Your task to perform on an android device: Search for vegetarian restaurants on Maps Image 0: 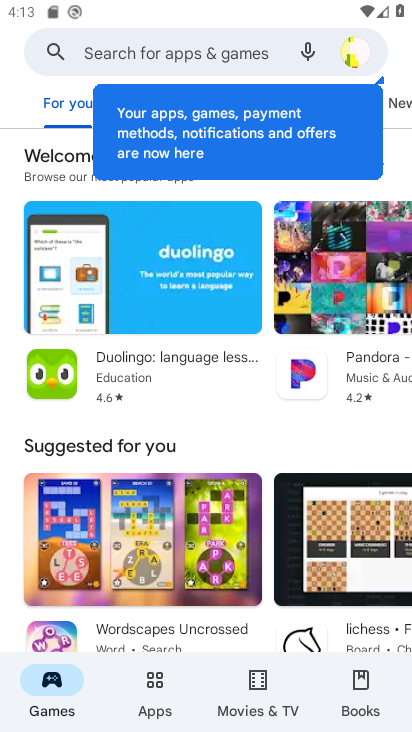
Step 0: press home button
Your task to perform on an android device: Search for vegetarian restaurants on Maps Image 1: 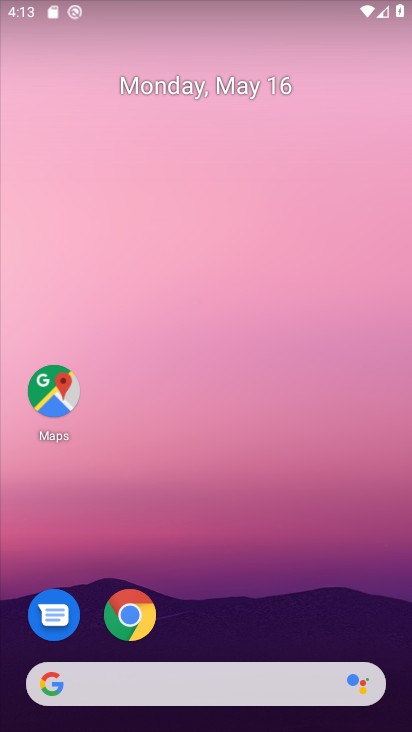
Step 1: click (55, 391)
Your task to perform on an android device: Search for vegetarian restaurants on Maps Image 2: 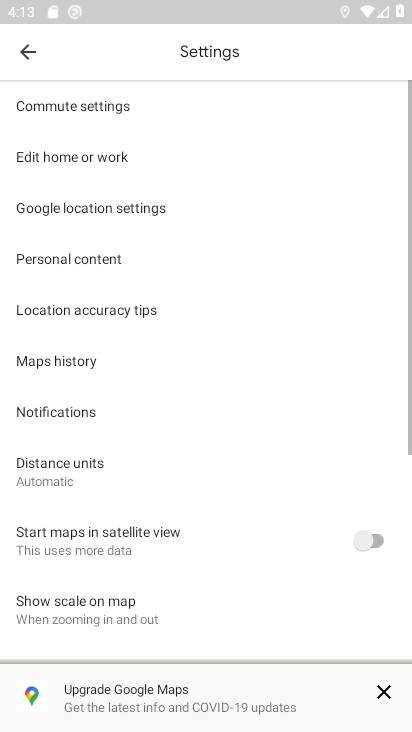
Step 2: click (33, 61)
Your task to perform on an android device: Search for vegetarian restaurants on Maps Image 3: 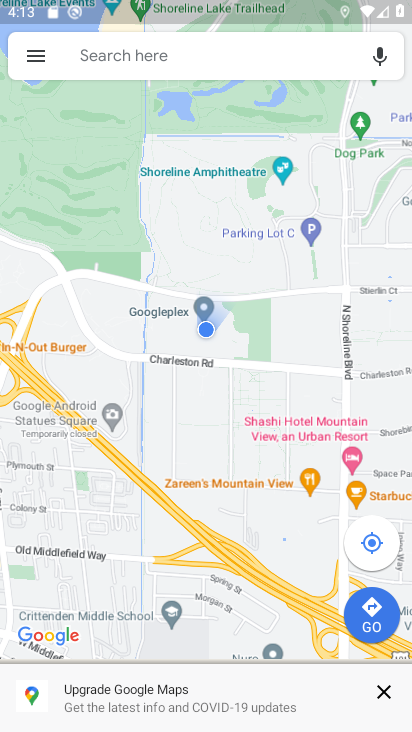
Step 3: click (150, 59)
Your task to perform on an android device: Search for vegetarian restaurants on Maps Image 4: 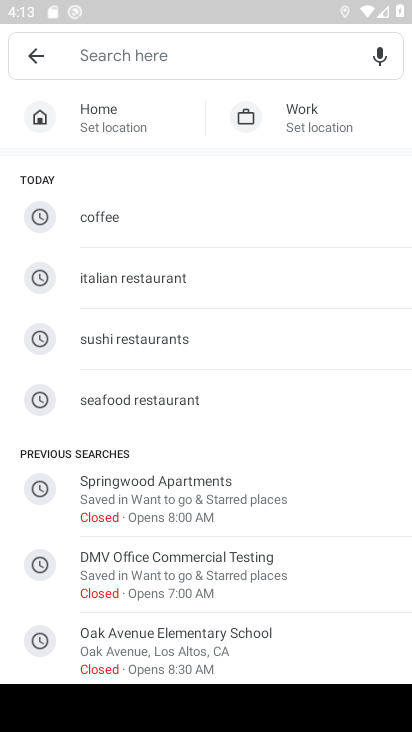
Step 4: type "vegetarian restaurants"
Your task to perform on an android device: Search for vegetarian restaurants on Maps Image 5: 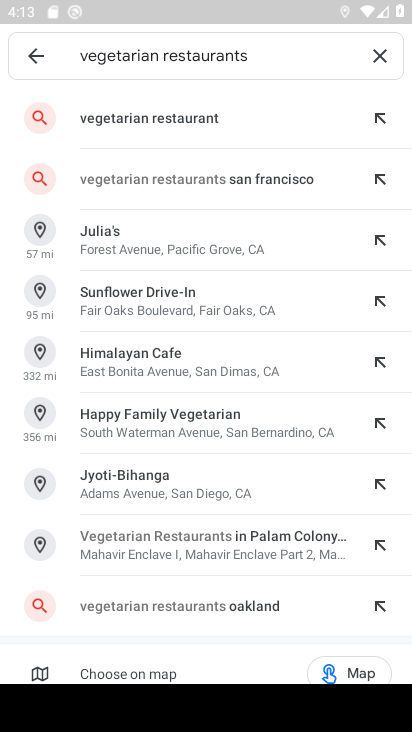
Step 5: click (183, 117)
Your task to perform on an android device: Search for vegetarian restaurants on Maps Image 6: 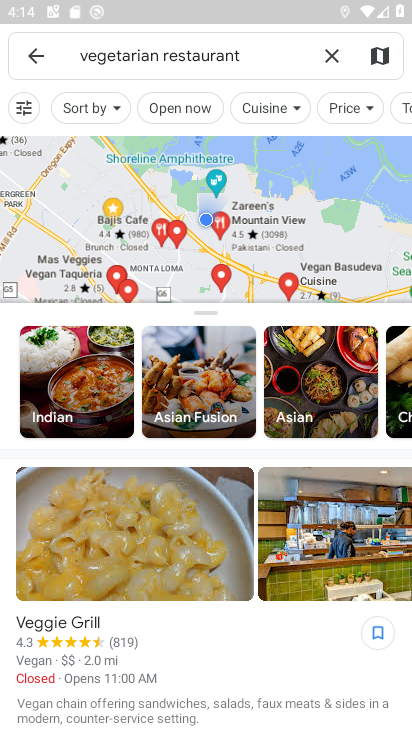
Step 6: task complete